Your task to perform on an android device: Do I have any events tomorrow? Image 0: 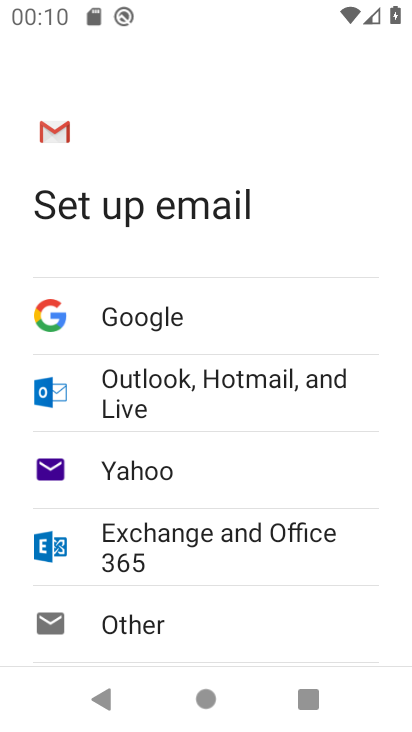
Step 0: press home button
Your task to perform on an android device: Do I have any events tomorrow? Image 1: 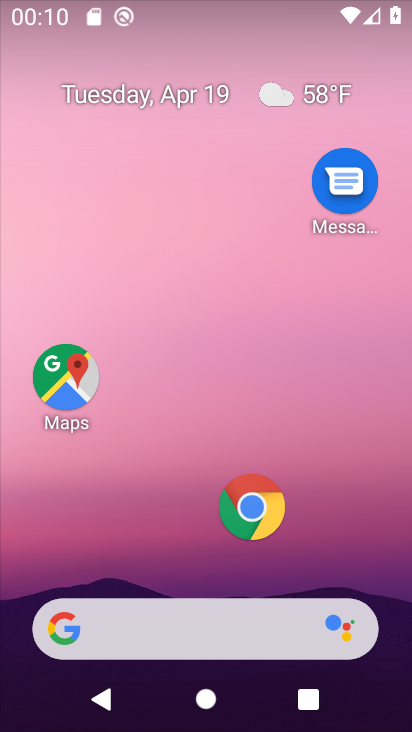
Step 1: drag from (169, 578) to (238, 9)
Your task to perform on an android device: Do I have any events tomorrow? Image 2: 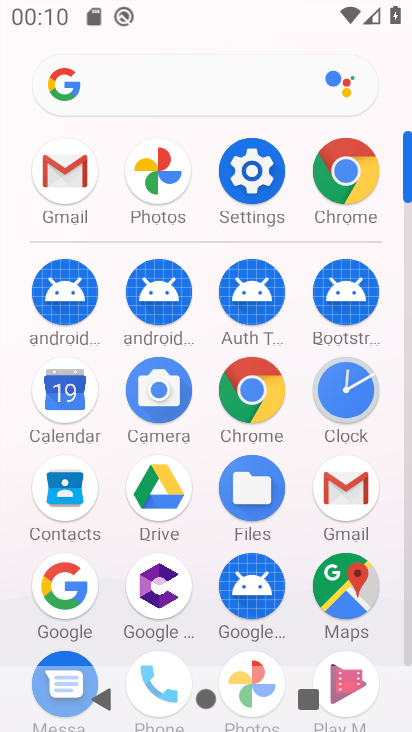
Step 2: click (69, 390)
Your task to perform on an android device: Do I have any events tomorrow? Image 3: 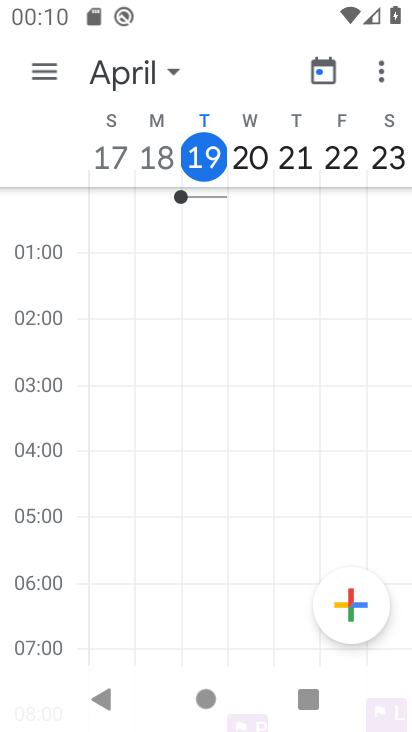
Step 3: click (40, 69)
Your task to perform on an android device: Do I have any events tomorrow? Image 4: 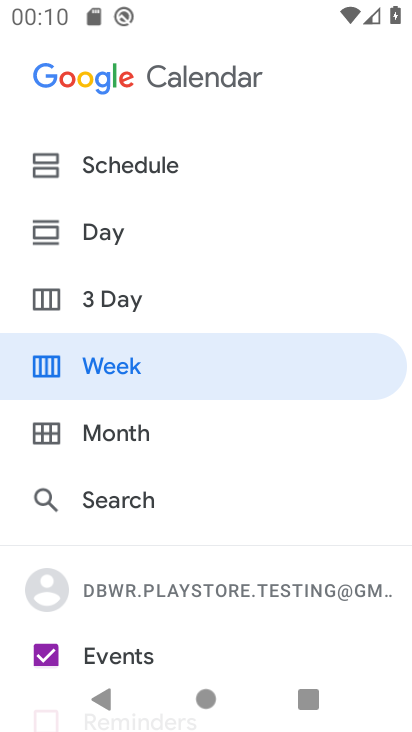
Step 4: click (162, 380)
Your task to perform on an android device: Do I have any events tomorrow? Image 5: 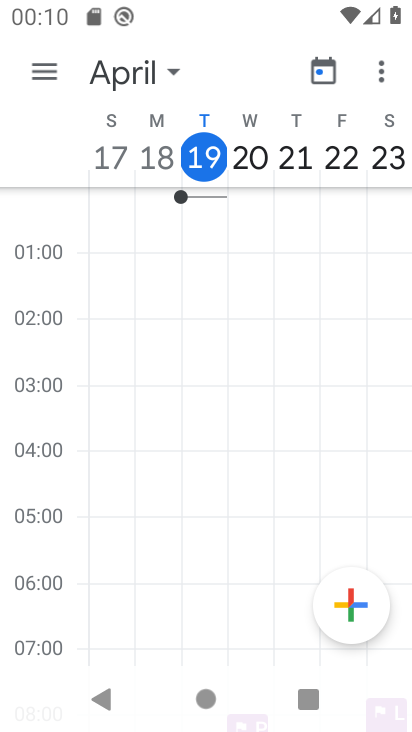
Step 5: task complete